Your task to perform on an android device: change the clock display to analog Image 0: 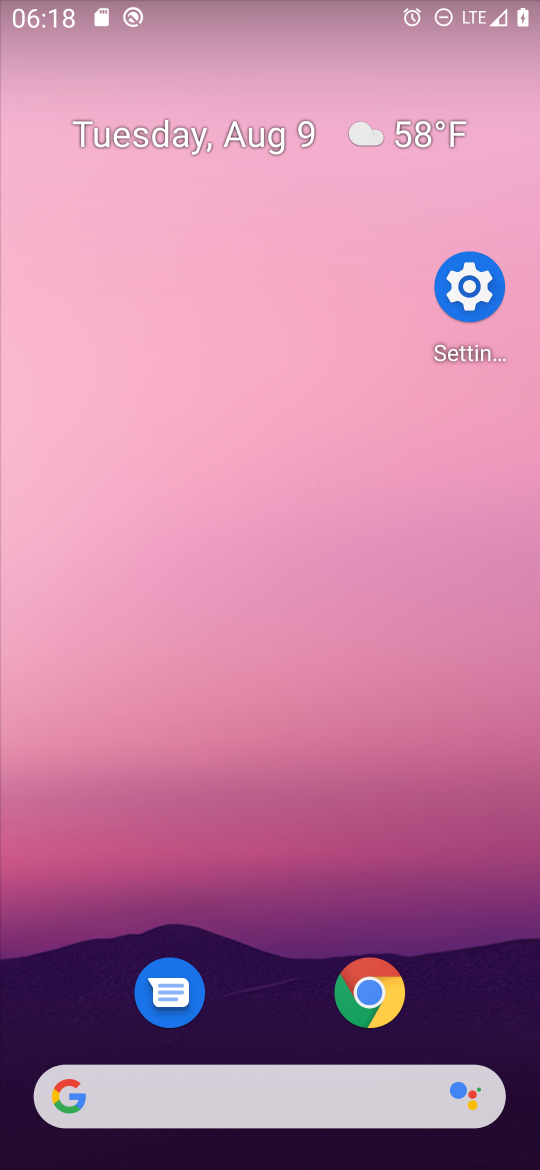
Step 0: drag from (369, 1094) to (350, 452)
Your task to perform on an android device: change the clock display to analog Image 1: 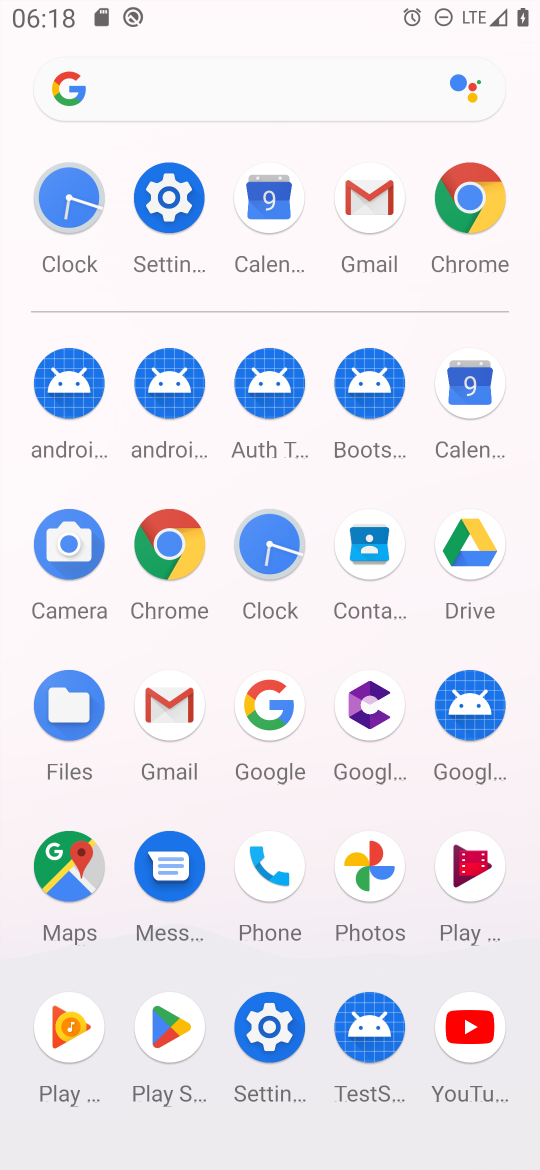
Step 1: click (258, 526)
Your task to perform on an android device: change the clock display to analog Image 2: 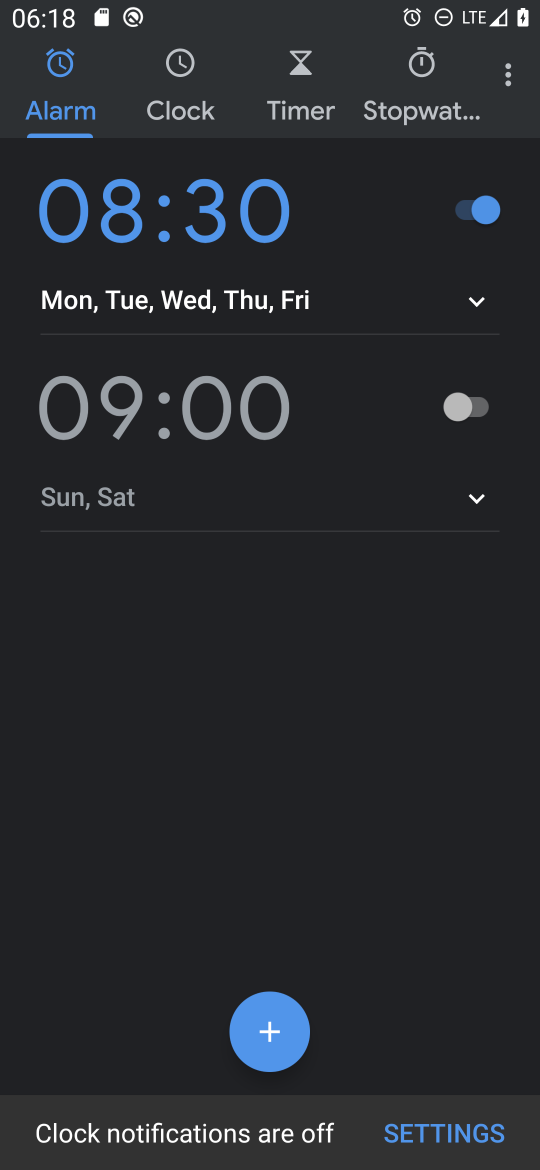
Step 2: click (497, 76)
Your task to perform on an android device: change the clock display to analog Image 3: 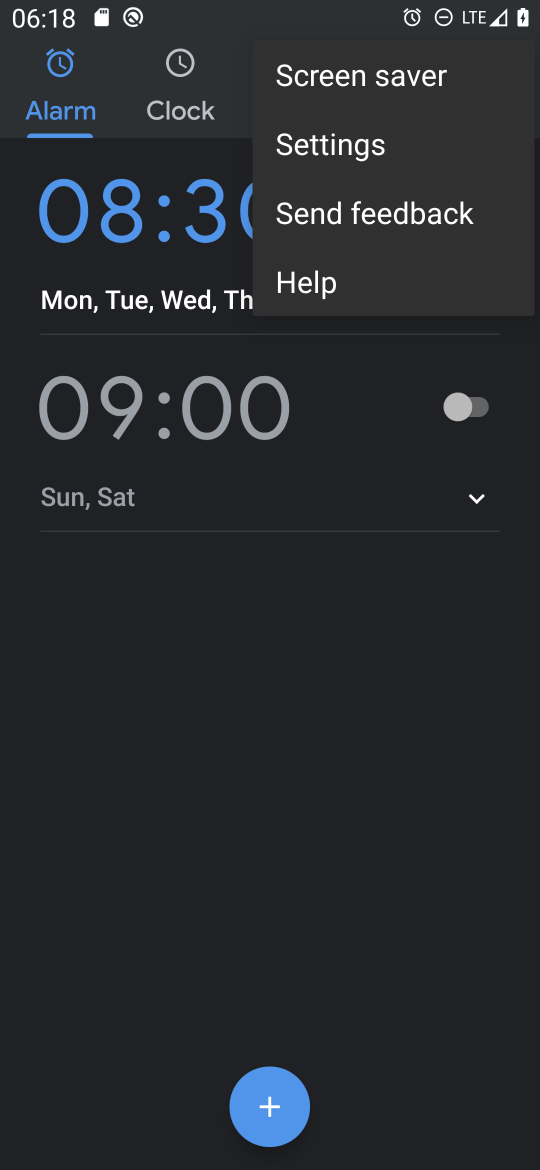
Step 3: click (348, 142)
Your task to perform on an android device: change the clock display to analog Image 4: 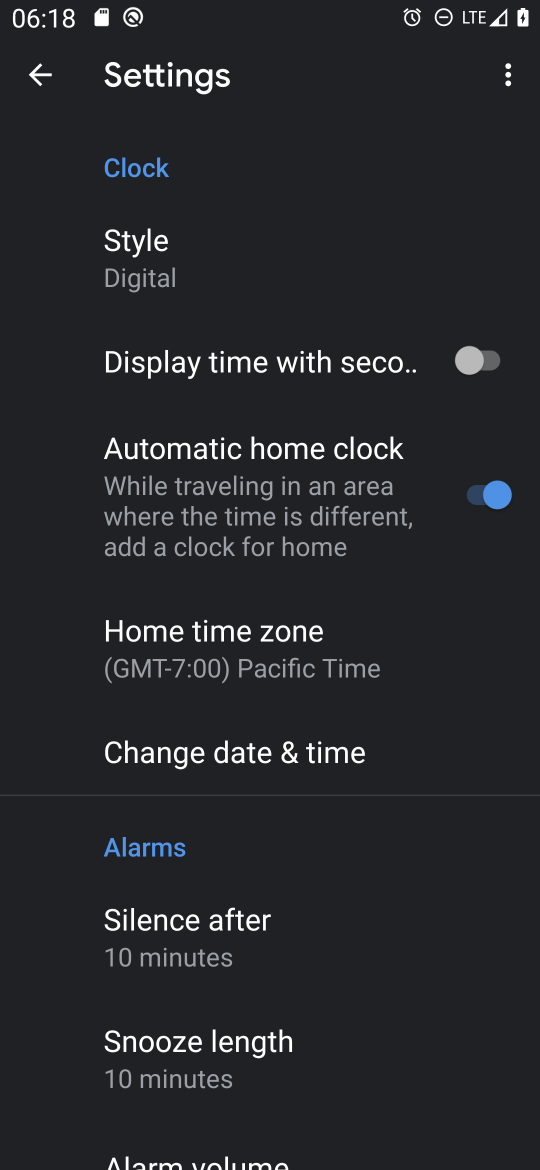
Step 4: click (213, 279)
Your task to perform on an android device: change the clock display to analog Image 5: 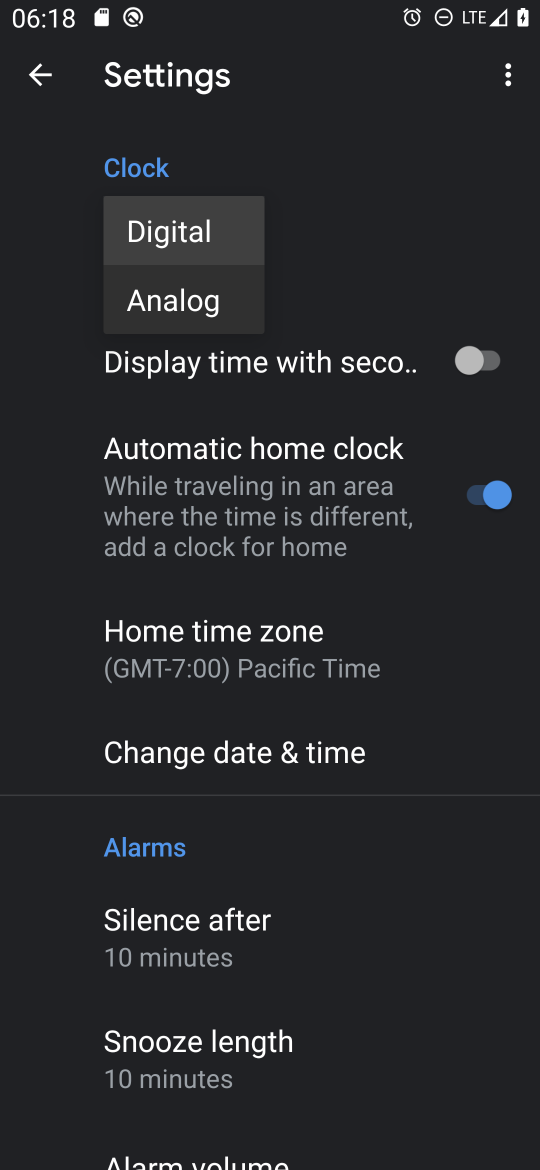
Step 5: click (207, 282)
Your task to perform on an android device: change the clock display to analog Image 6: 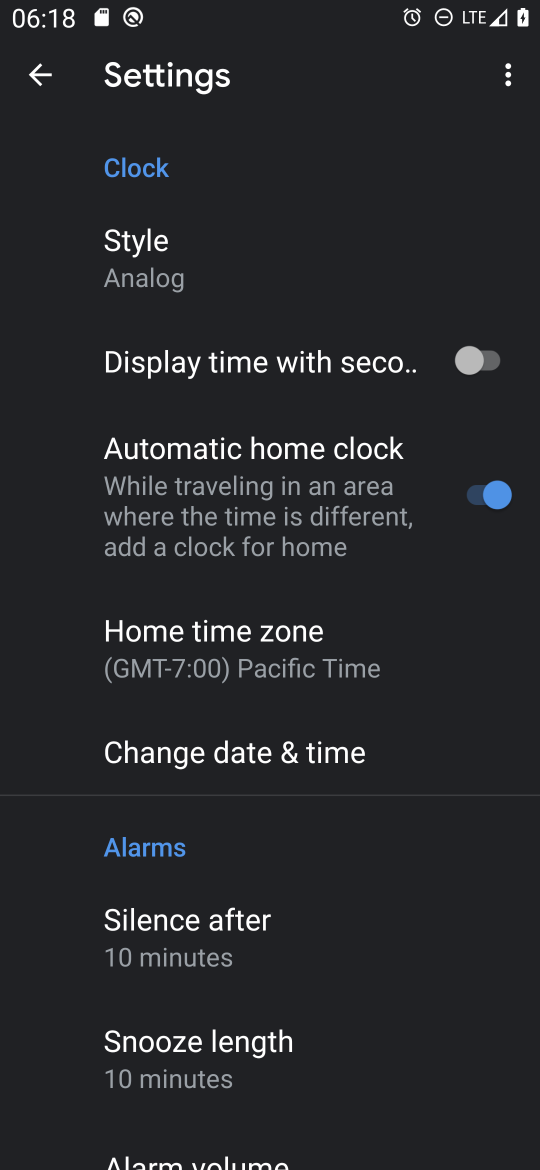
Step 6: task complete